Your task to perform on an android device: Open Chrome and go to settings Image 0: 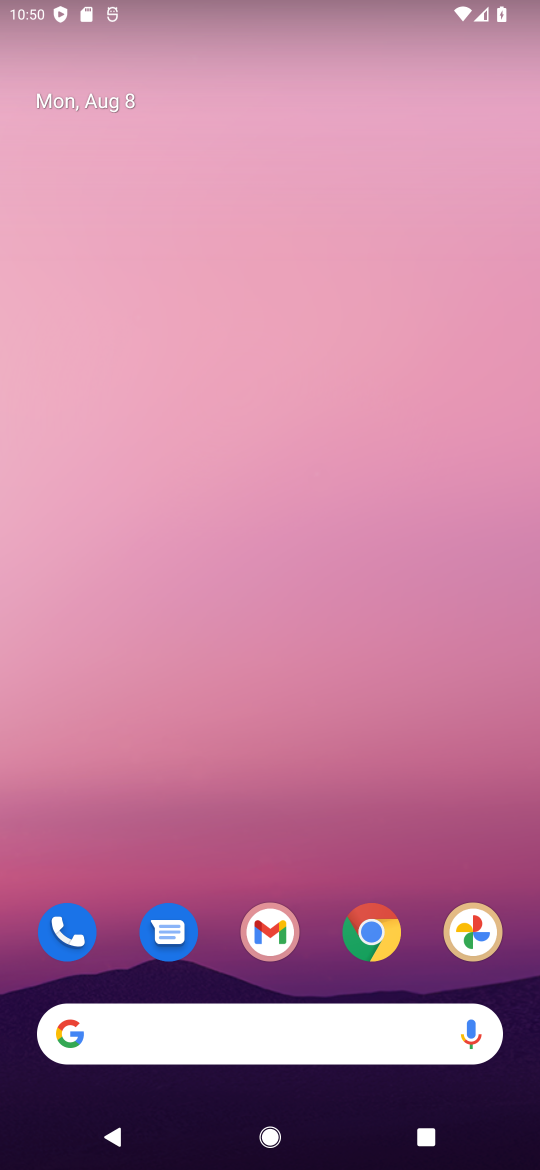
Step 0: click (372, 911)
Your task to perform on an android device: Open Chrome and go to settings Image 1: 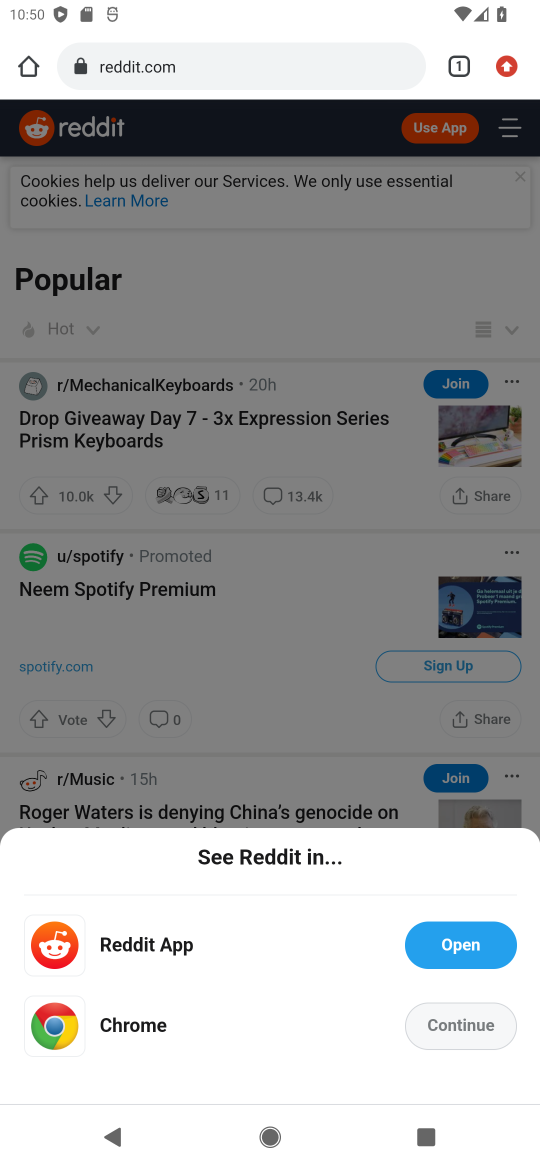
Step 1: click (503, 57)
Your task to perform on an android device: Open Chrome and go to settings Image 2: 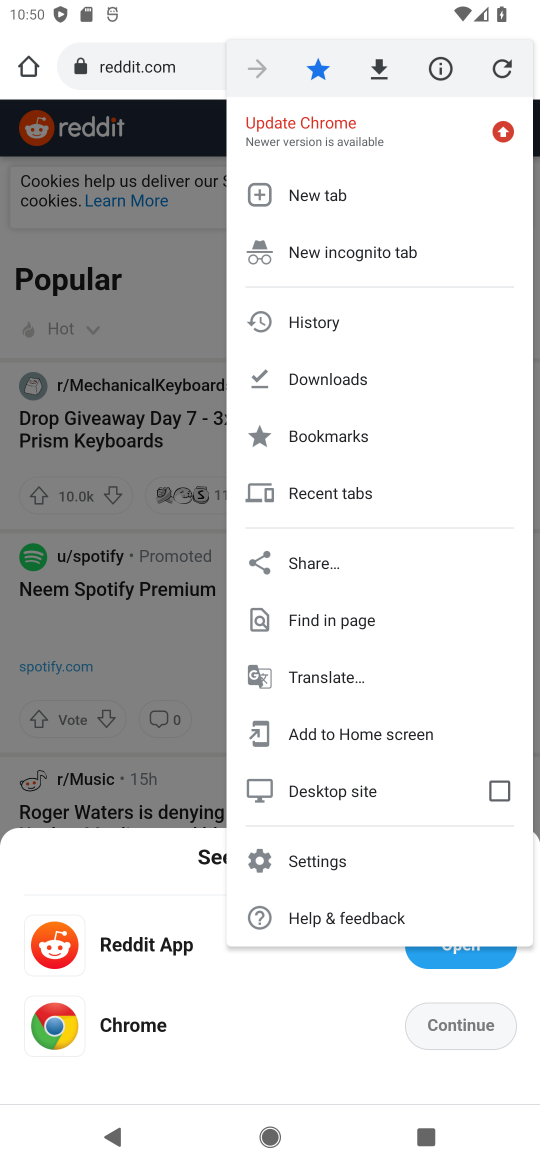
Step 2: click (354, 864)
Your task to perform on an android device: Open Chrome and go to settings Image 3: 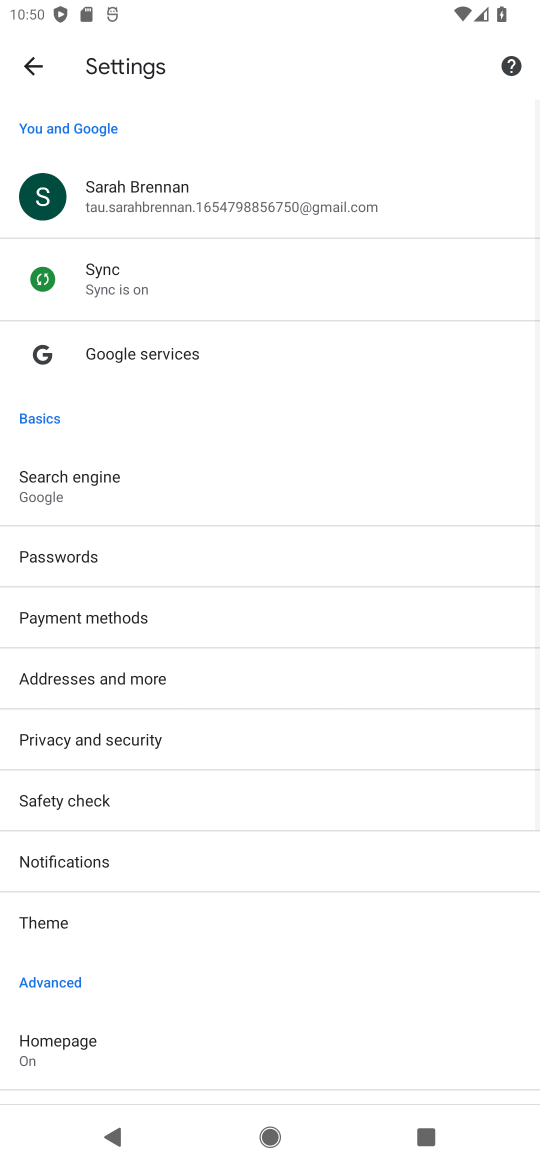
Step 3: task complete